Your task to perform on an android device: open app "HBO Max: Stream TV & Movies" (install if not already installed) and go to login screen Image 0: 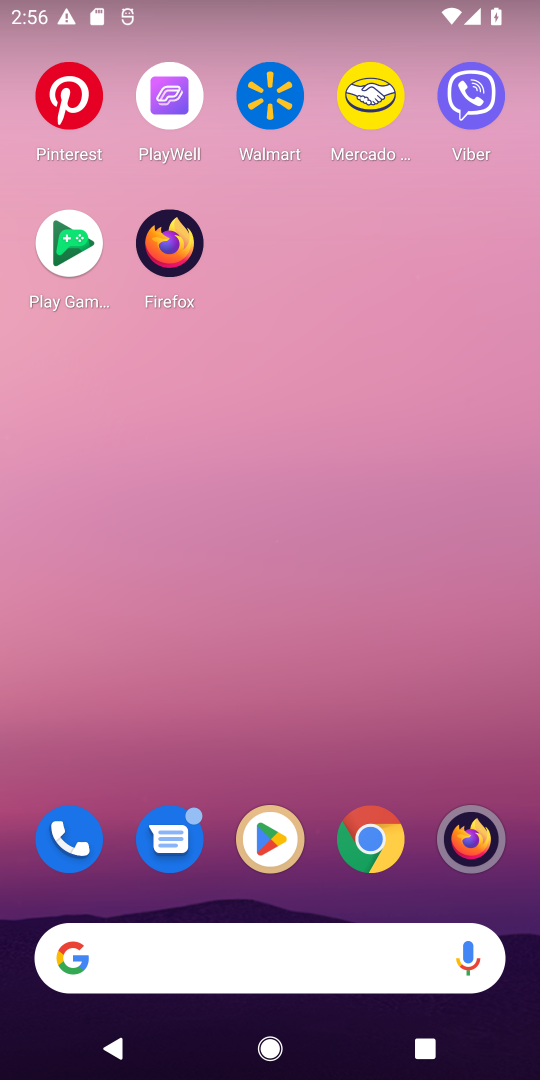
Step 0: drag from (252, 911) to (176, 3)
Your task to perform on an android device: open app "HBO Max: Stream TV & Movies" (install if not already installed) and go to login screen Image 1: 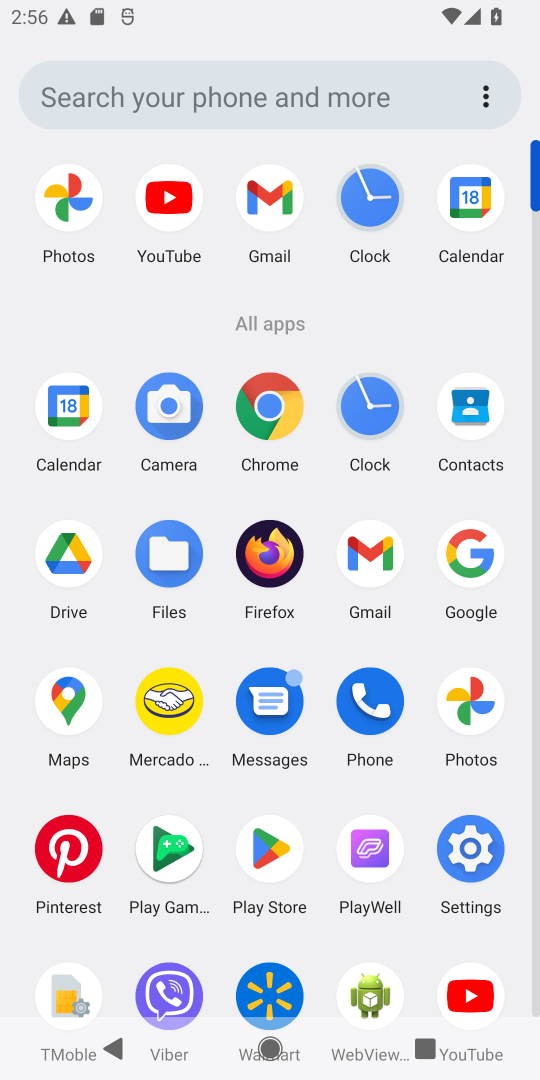
Step 1: click (230, 866)
Your task to perform on an android device: open app "HBO Max: Stream TV & Movies" (install if not already installed) and go to login screen Image 2: 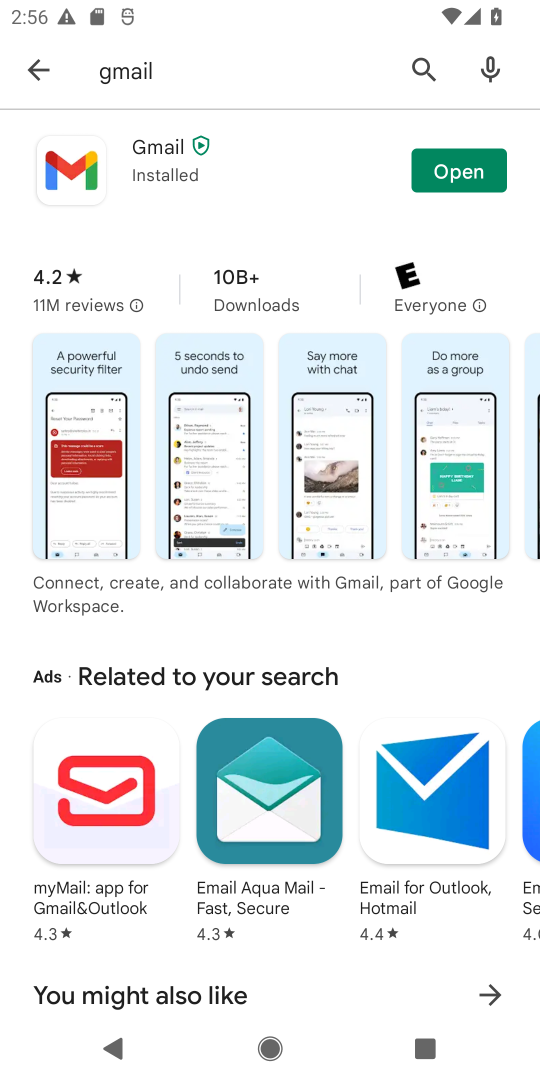
Step 2: click (26, 67)
Your task to perform on an android device: open app "HBO Max: Stream TV & Movies" (install if not already installed) and go to login screen Image 3: 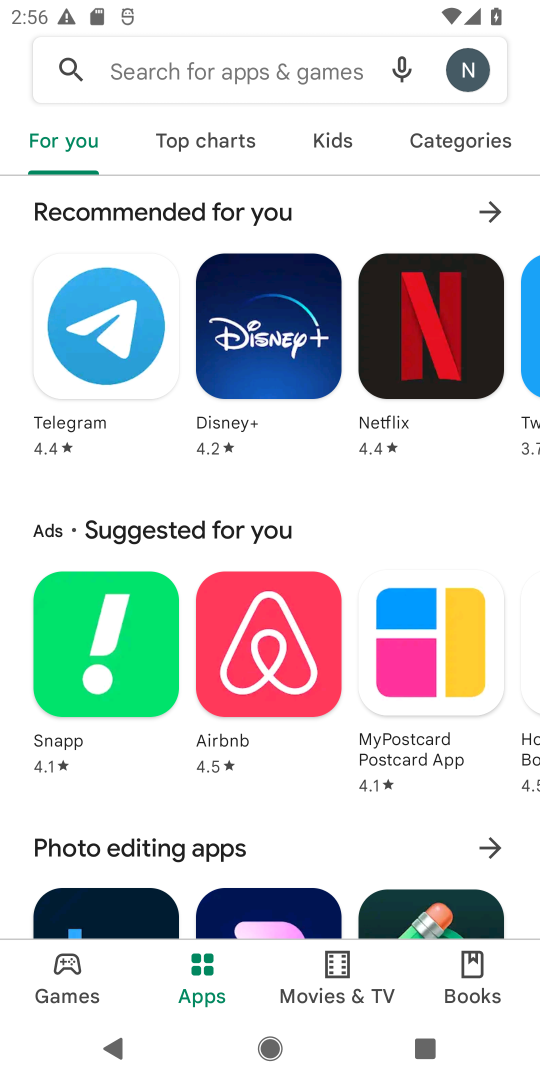
Step 3: click (108, 65)
Your task to perform on an android device: open app "HBO Max: Stream TV & Movies" (install if not already installed) and go to login screen Image 4: 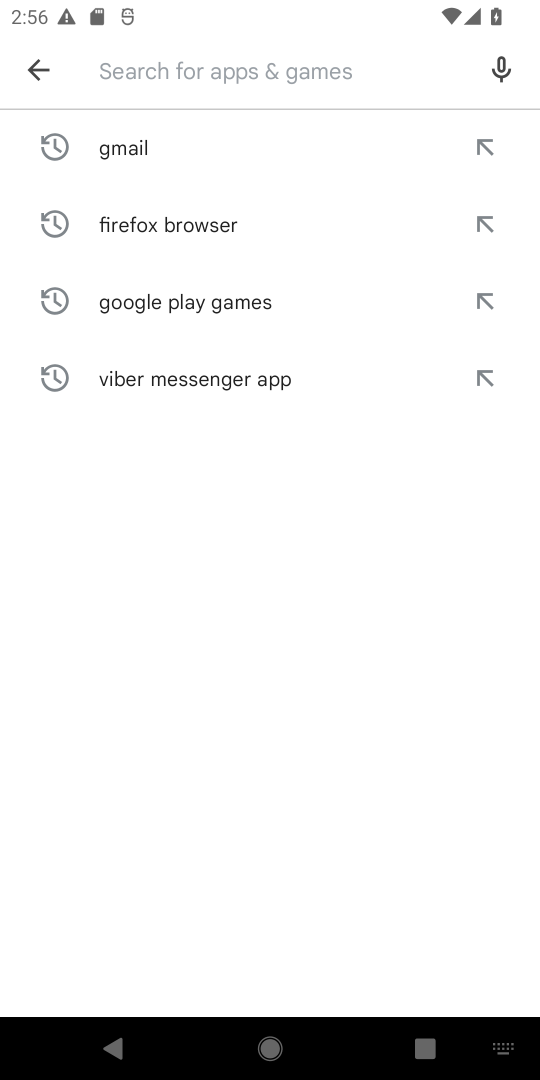
Step 4: type "HBO Max: Stream TV & Movies"
Your task to perform on an android device: open app "HBO Max: Stream TV & Movies" (install if not already installed) and go to login screen Image 5: 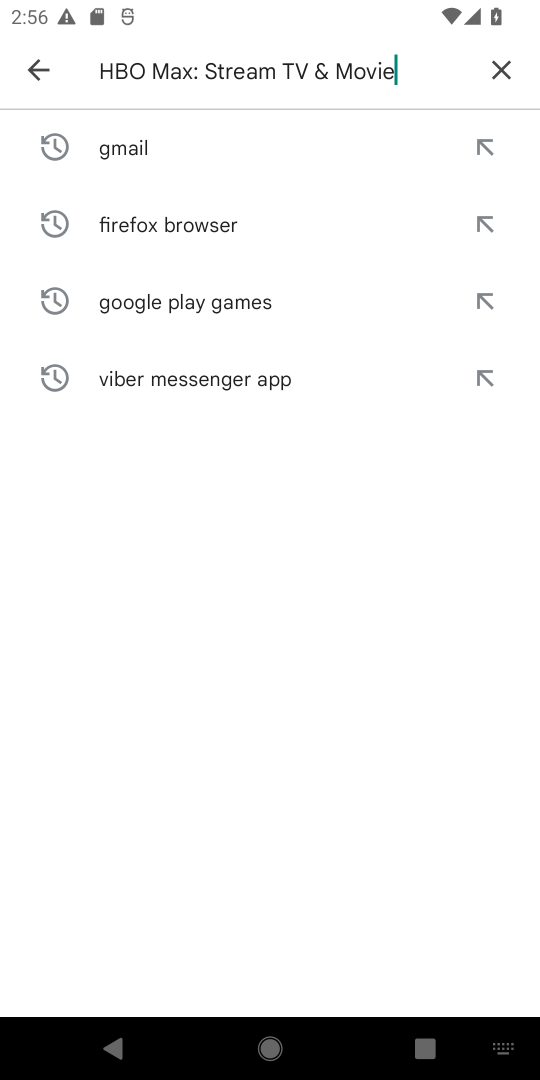
Step 5: type ""
Your task to perform on an android device: open app "HBO Max: Stream TV & Movies" (install if not already installed) and go to login screen Image 6: 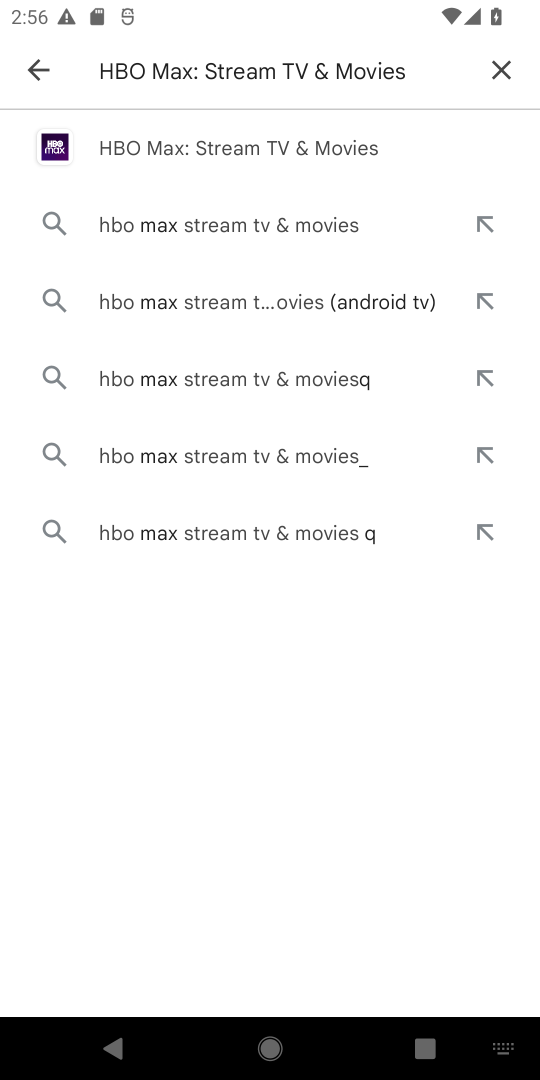
Step 6: click (187, 153)
Your task to perform on an android device: open app "HBO Max: Stream TV & Movies" (install if not already installed) and go to login screen Image 7: 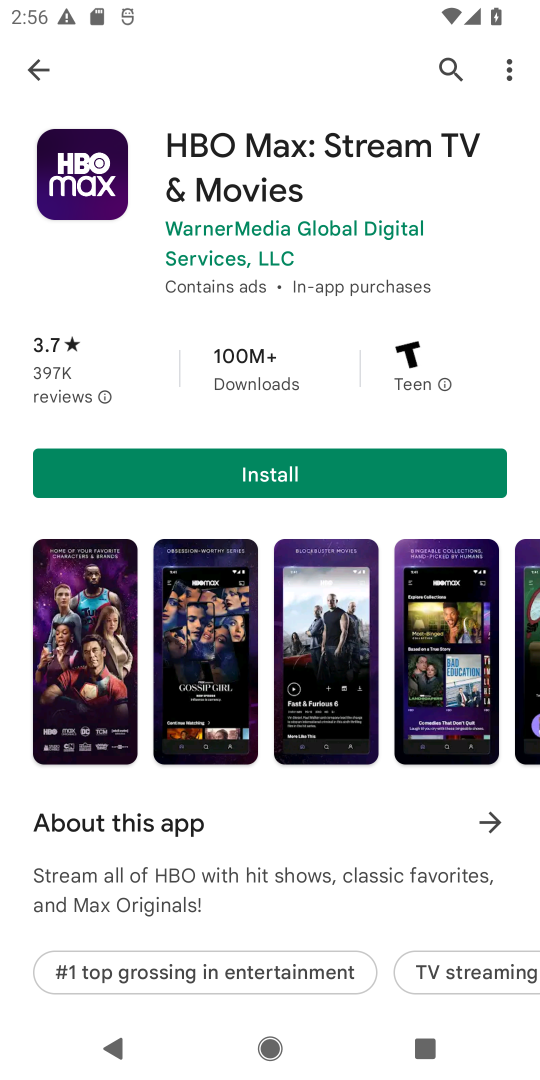
Step 7: click (244, 486)
Your task to perform on an android device: open app "HBO Max: Stream TV & Movies" (install if not already installed) and go to login screen Image 8: 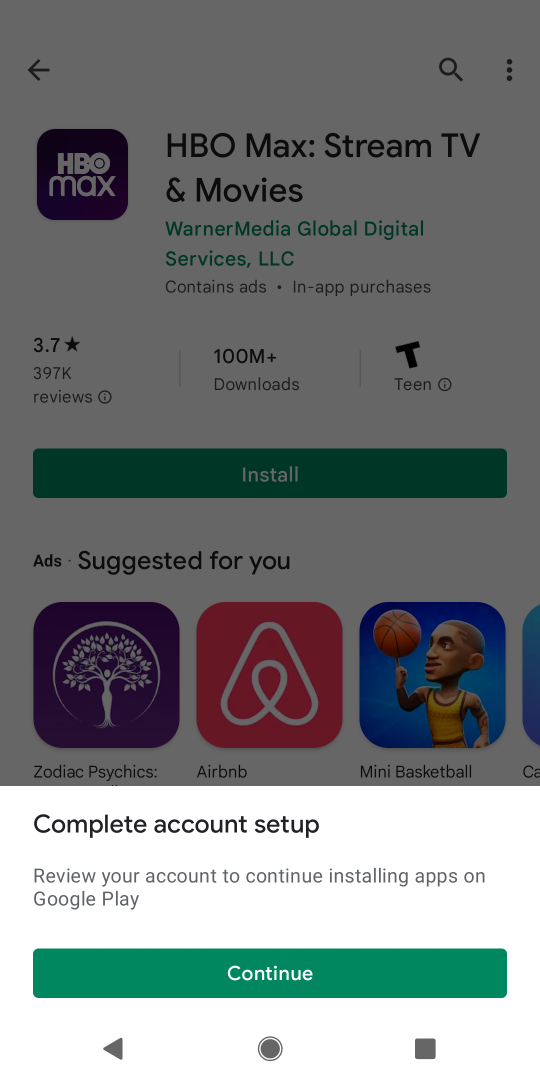
Step 8: click (228, 991)
Your task to perform on an android device: open app "HBO Max: Stream TV & Movies" (install if not already installed) and go to login screen Image 9: 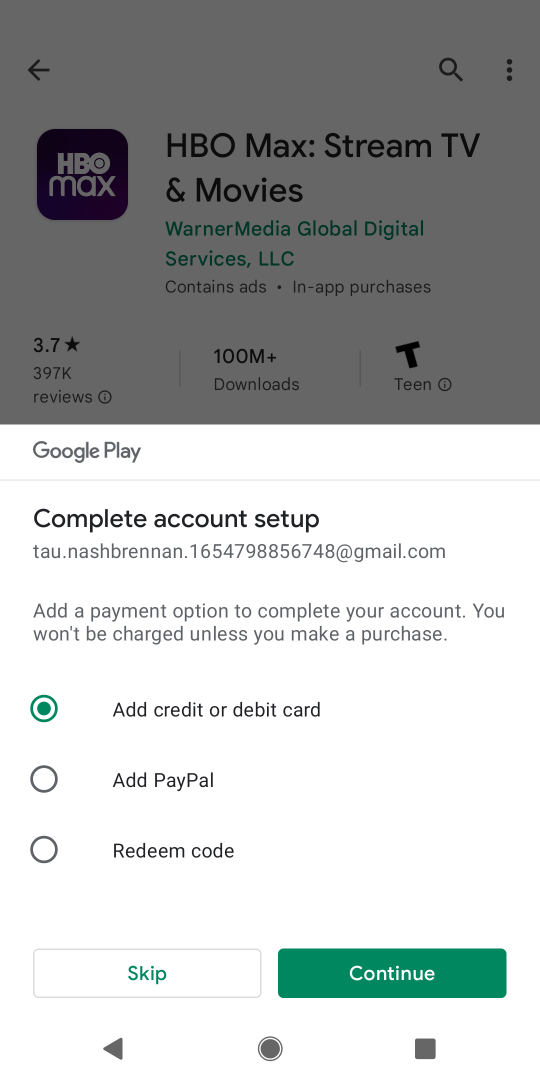
Step 9: click (196, 962)
Your task to perform on an android device: open app "HBO Max: Stream TV & Movies" (install if not already installed) and go to login screen Image 10: 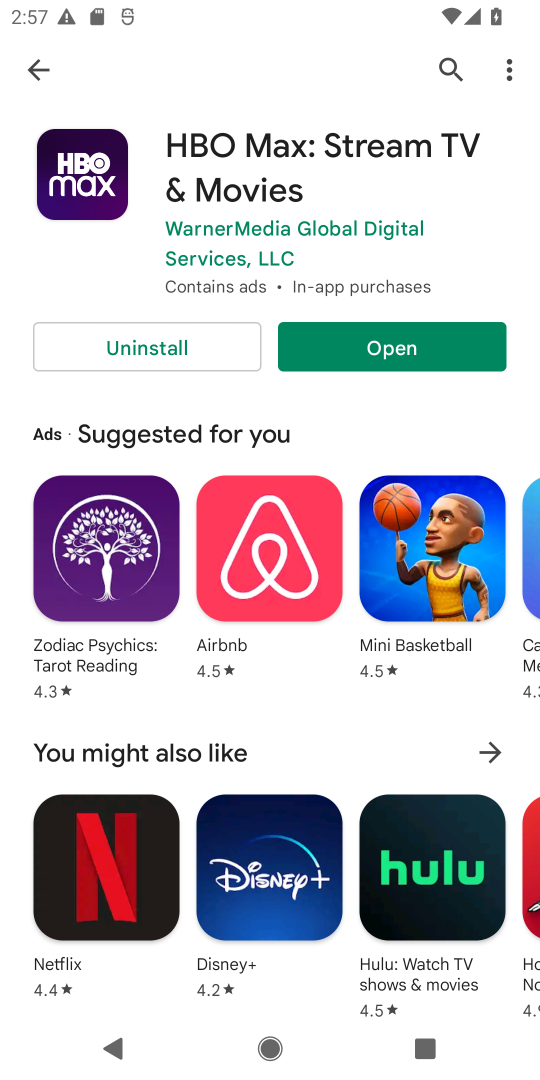
Step 10: click (407, 354)
Your task to perform on an android device: open app "HBO Max: Stream TV & Movies" (install if not already installed) and go to login screen Image 11: 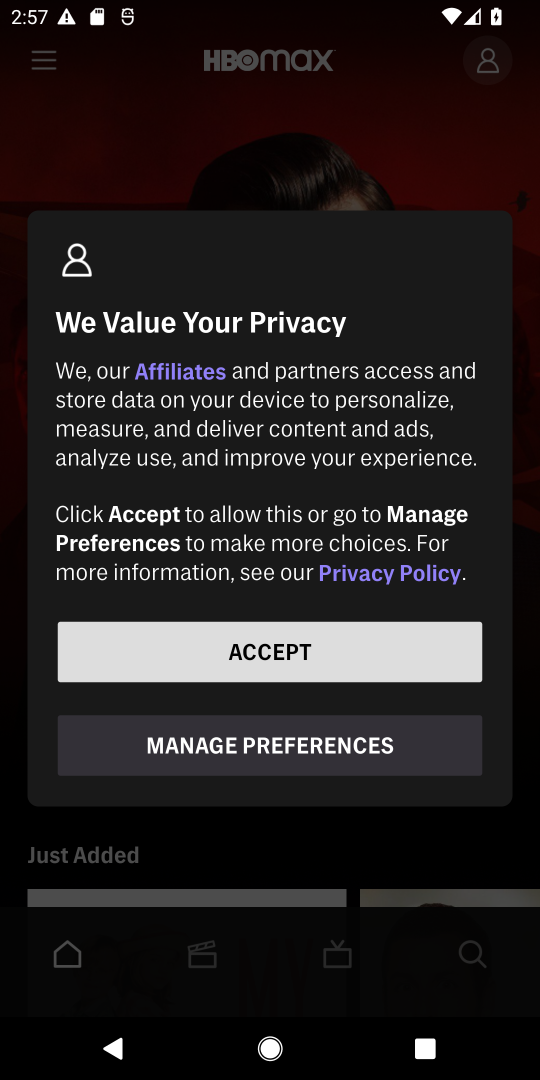
Step 11: click (236, 669)
Your task to perform on an android device: open app "HBO Max: Stream TV & Movies" (install if not already installed) and go to login screen Image 12: 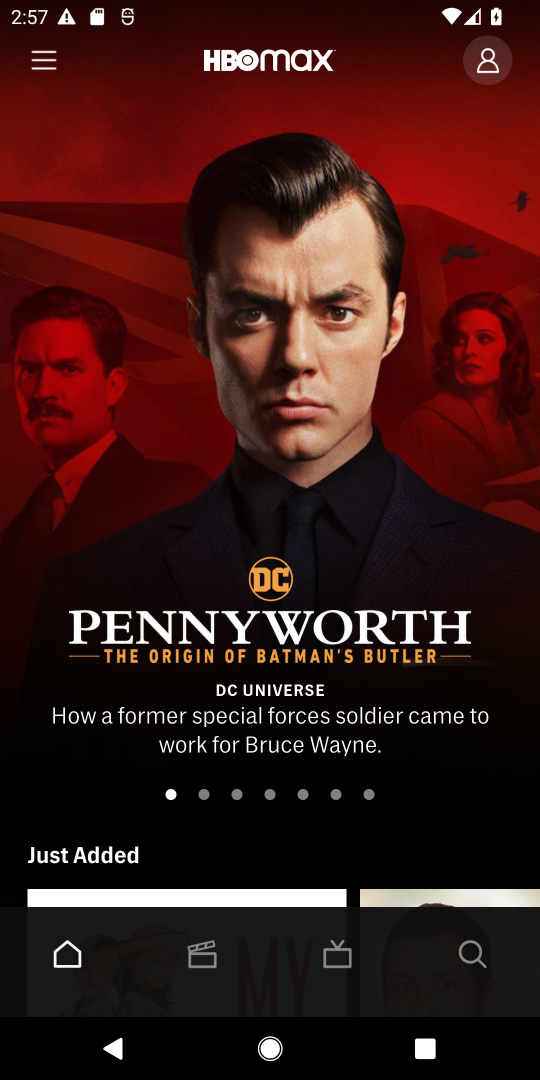
Step 12: click (484, 83)
Your task to perform on an android device: open app "HBO Max: Stream TV & Movies" (install if not already installed) and go to login screen Image 13: 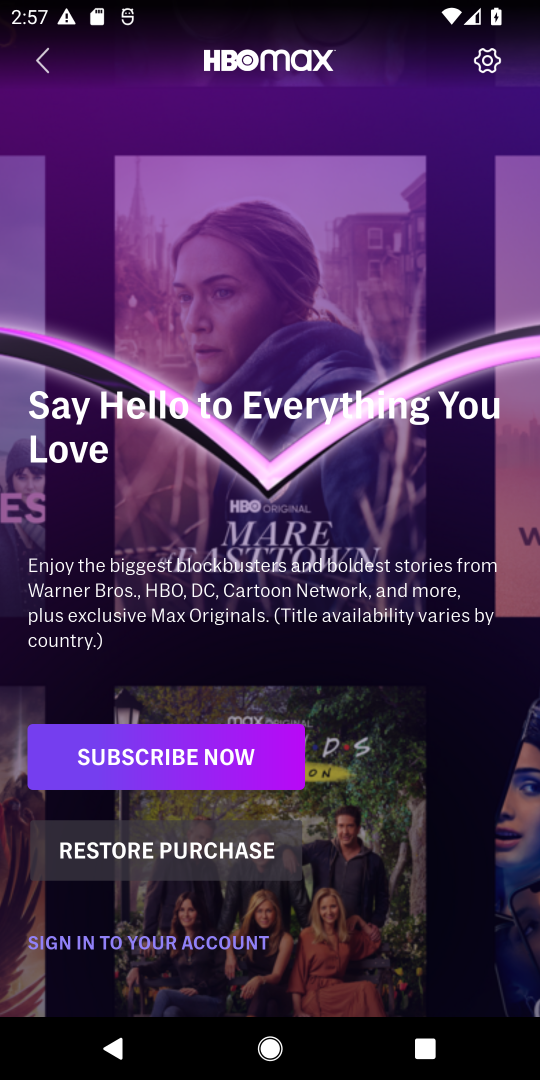
Step 13: click (136, 949)
Your task to perform on an android device: open app "HBO Max: Stream TV & Movies" (install if not already installed) and go to login screen Image 14: 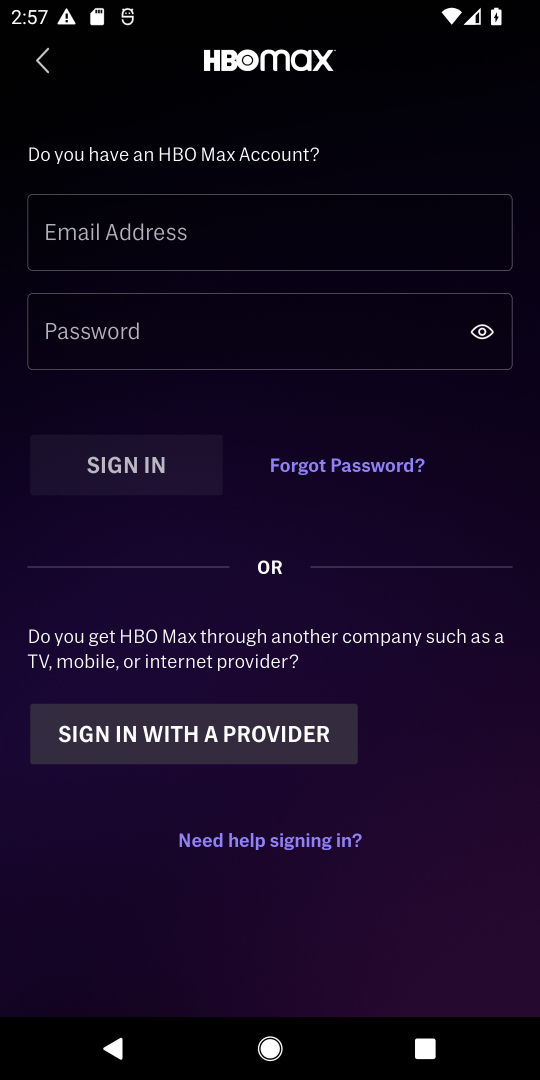
Step 14: task complete